Your task to perform on an android device: Open the Play Movies app and select the watchlist tab. Image 0: 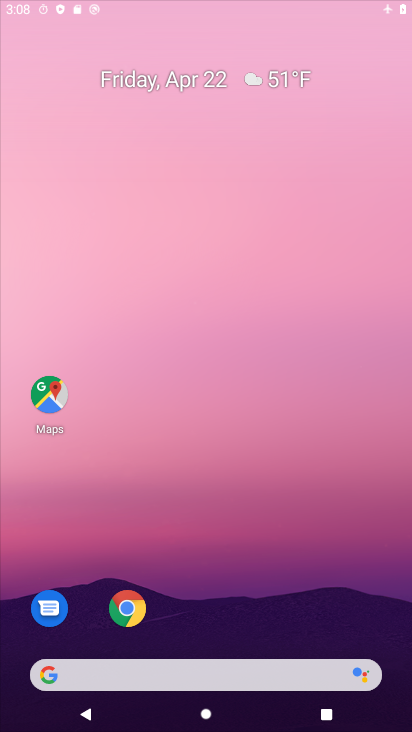
Step 0: drag from (234, 579) to (234, 37)
Your task to perform on an android device: Open the Play Movies app and select the watchlist tab. Image 1: 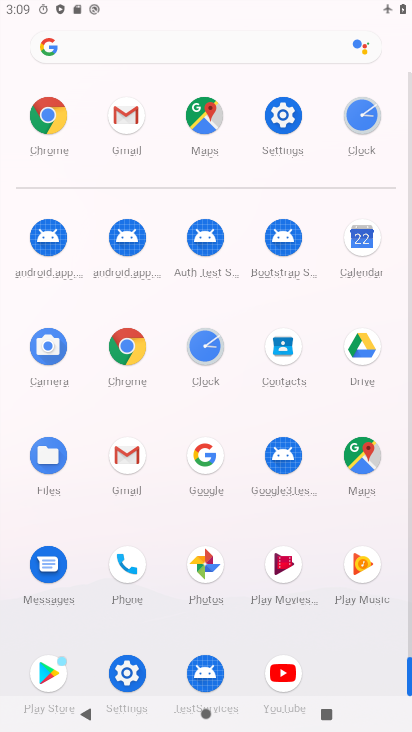
Step 1: click (283, 566)
Your task to perform on an android device: Open the Play Movies app and select the watchlist tab. Image 2: 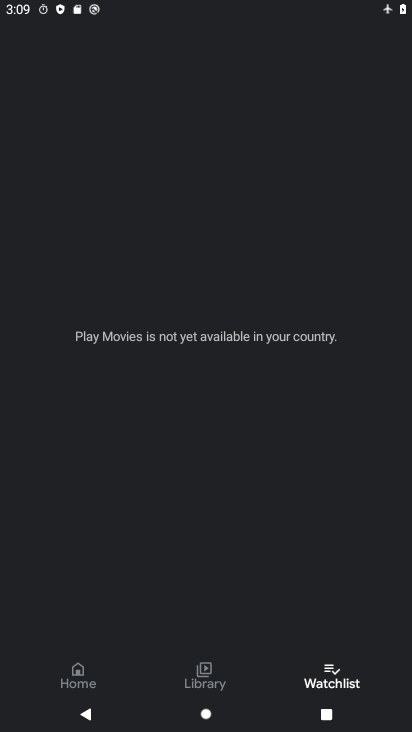
Step 2: task complete